Your task to perform on an android device: find photos in the google photos app Image 0: 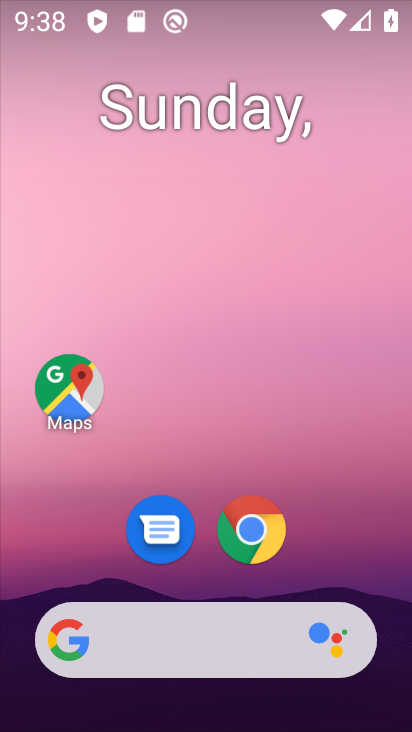
Step 0: drag from (200, 474) to (336, 45)
Your task to perform on an android device: find photos in the google photos app Image 1: 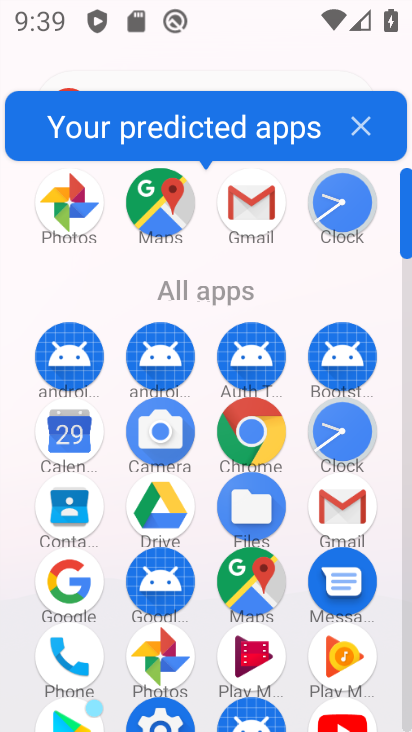
Step 1: drag from (203, 567) to (204, 188)
Your task to perform on an android device: find photos in the google photos app Image 2: 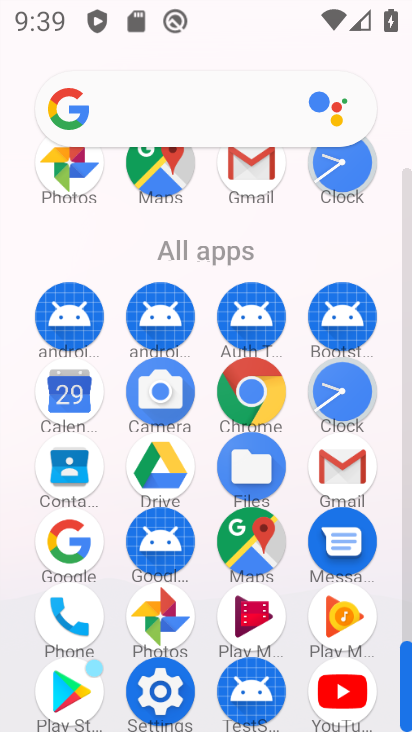
Step 2: click (158, 609)
Your task to perform on an android device: find photos in the google photos app Image 3: 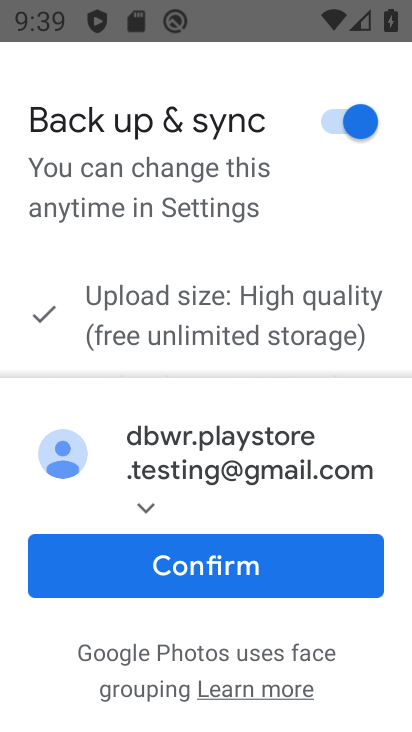
Step 3: click (190, 553)
Your task to perform on an android device: find photos in the google photos app Image 4: 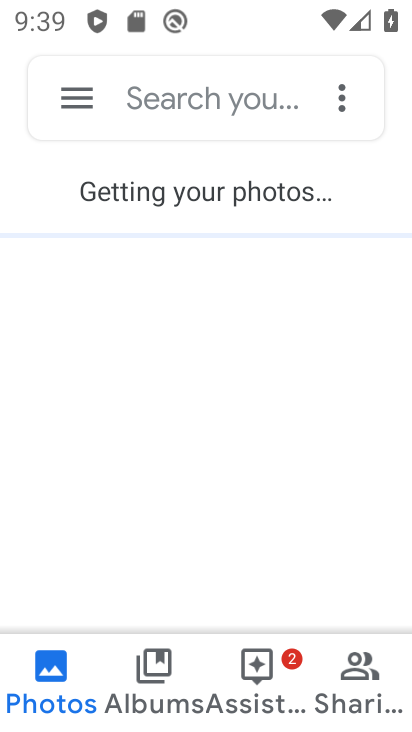
Step 4: task complete